Your task to perform on an android device: toggle translation in the chrome app Image 0: 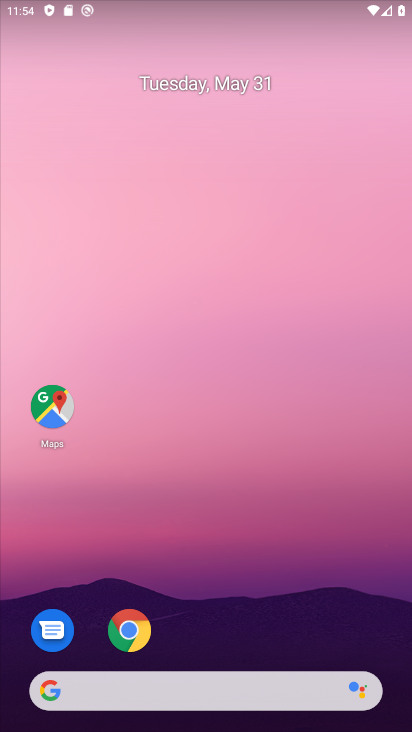
Step 0: drag from (357, 586) to (350, 186)
Your task to perform on an android device: toggle translation in the chrome app Image 1: 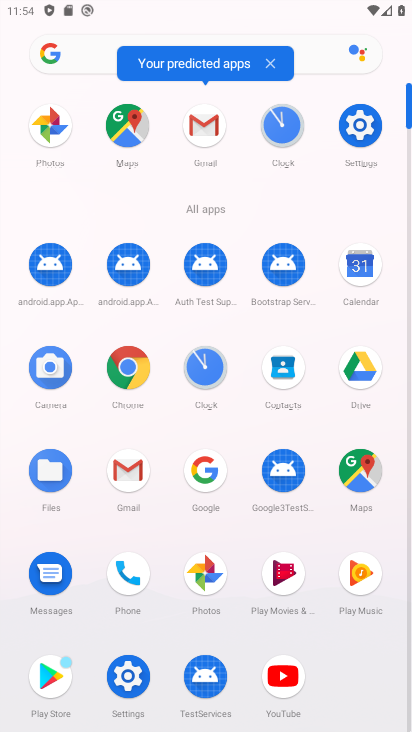
Step 1: click (145, 382)
Your task to perform on an android device: toggle translation in the chrome app Image 2: 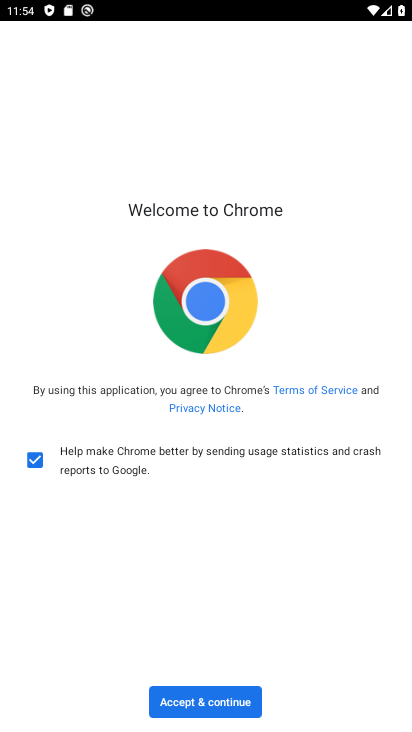
Step 2: click (216, 702)
Your task to perform on an android device: toggle translation in the chrome app Image 3: 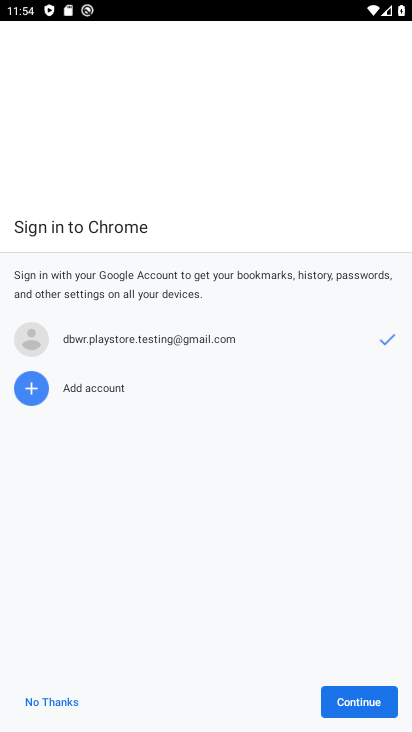
Step 3: click (343, 697)
Your task to perform on an android device: toggle translation in the chrome app Image 4: 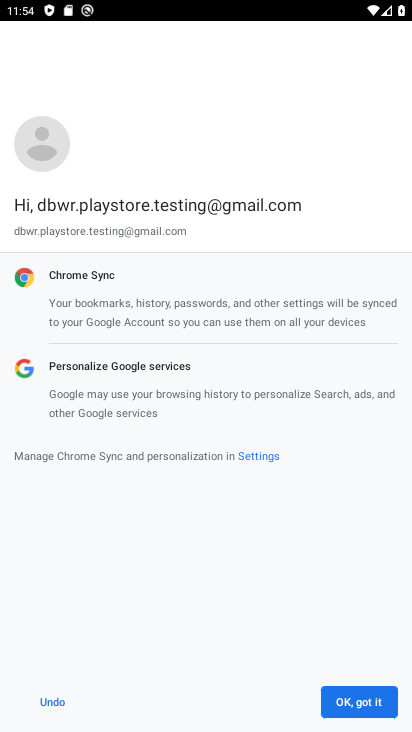
Step 4: click (343, 697)
Your task to perform on an android device: toggle translation in the chrome app Image 5: 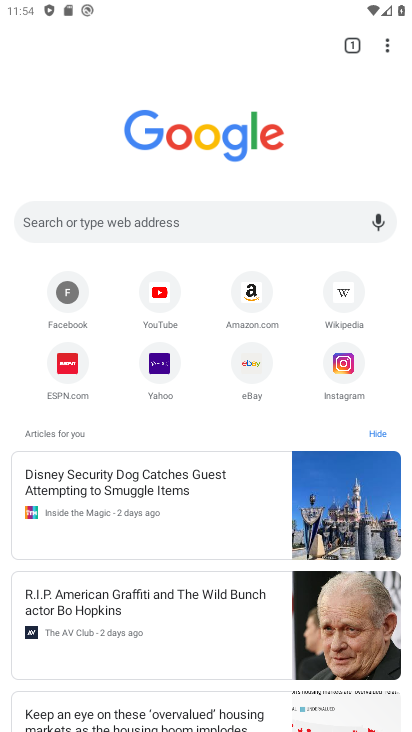
Step 5: click (388, 50)
Your task to perform on an android device: toggle translation in the chrome app Image 6: 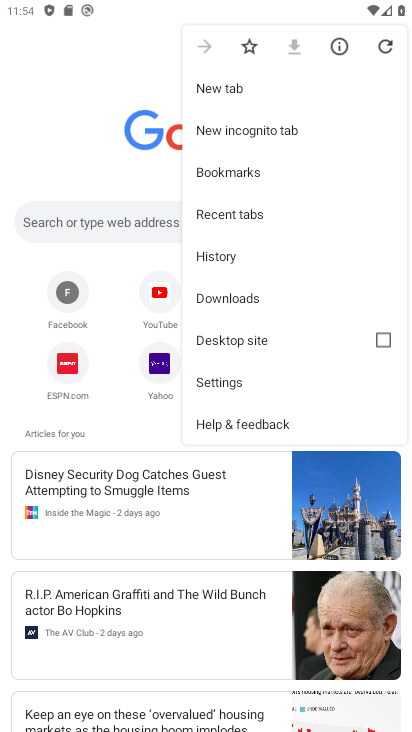
Step 6: click (248, 383)
Your task to perform on an android device: toggle translation in the chrome app Image 7: 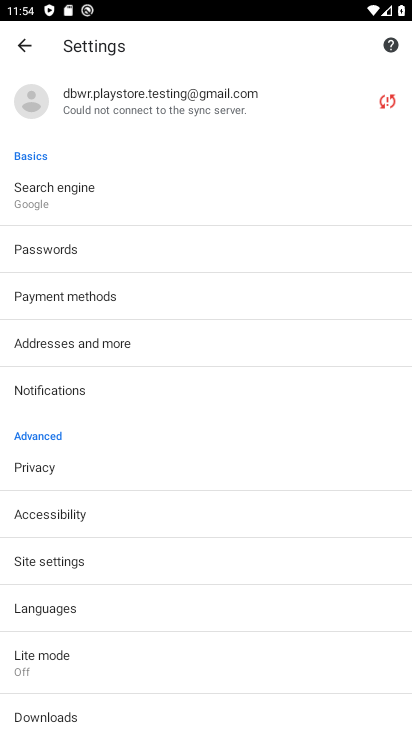
Step 7: drag from (283, 531) to (300, 401)
Your task to perform on an android device: toggle translation in the chrome app Image 8: 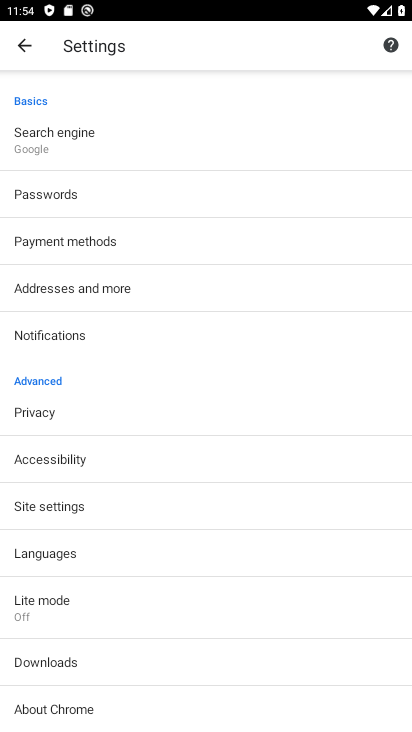
Step 8: drag from (276, 531) to (278, 378)
Your task to perform on an android device: toggle translation in the chrome app Image 9: 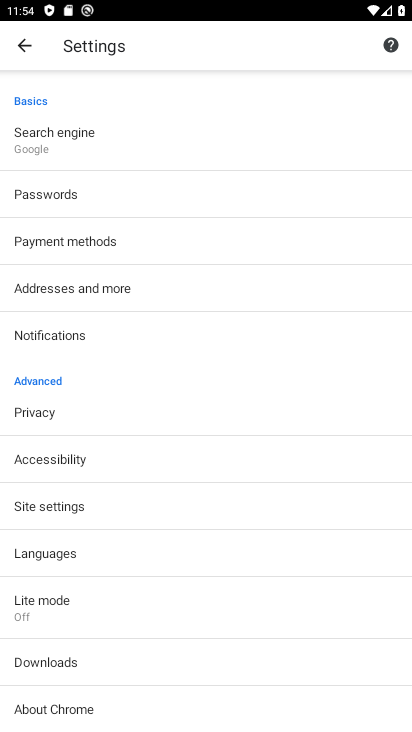
Step 9: click (263, 554)
Your task to perform on an android device: toggle translation in the chrome app Image 10: 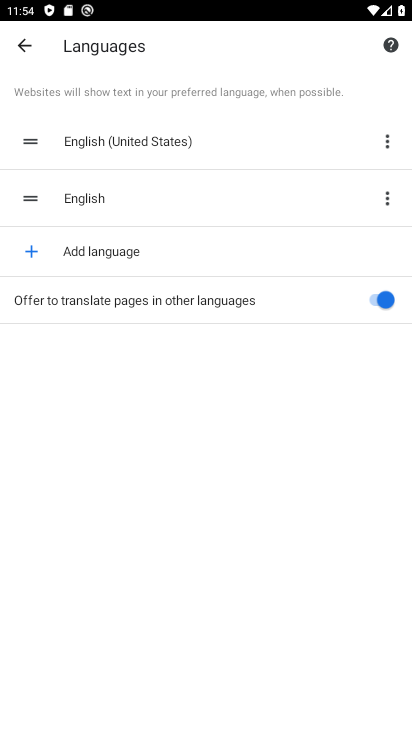
Step 10: click (377, 306)
Your task to perform on an android device: toggle translation in the chrome app Image 11: 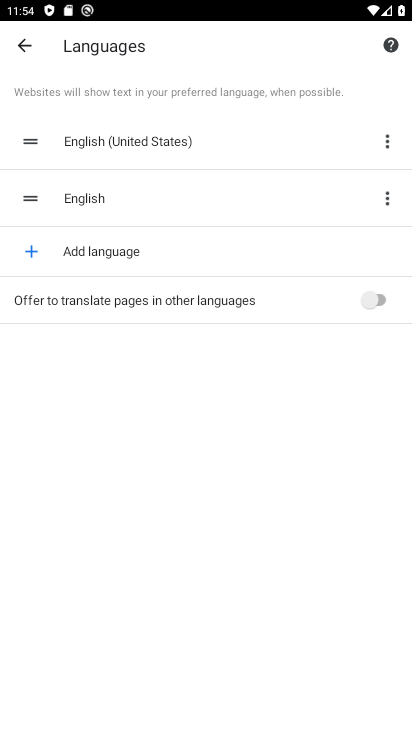
Step 11: task complete